Your task to perform on an android device: toggle notification dots Image 0: 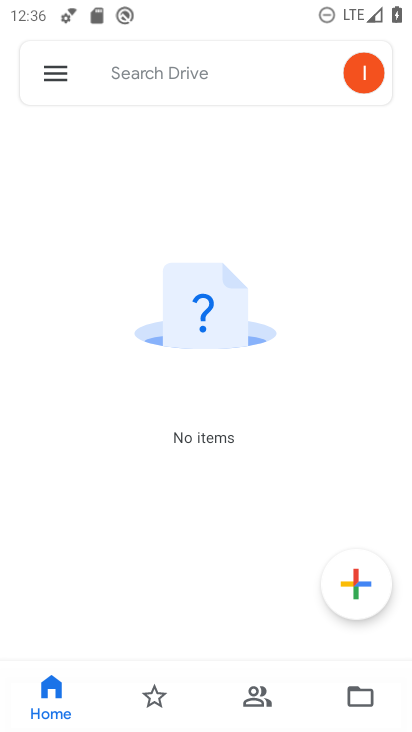
Step 0: press home button
Your task to perform on an android device: toggle notification dots Image 1: 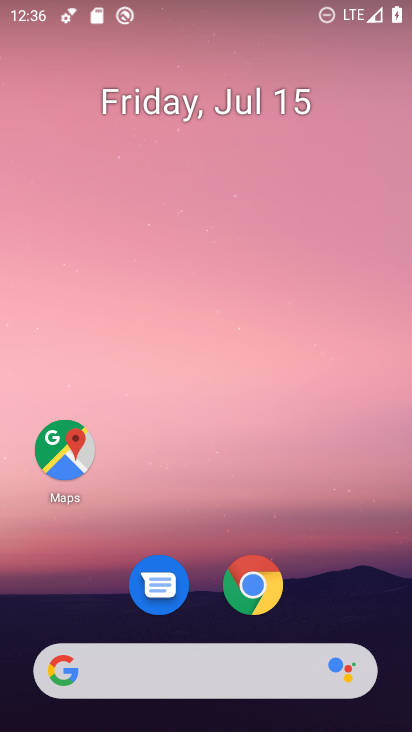
Step 1: drag from (178, 473) to (237, 5)
Your task to perform on an android device: toggle notification dots Image 2: 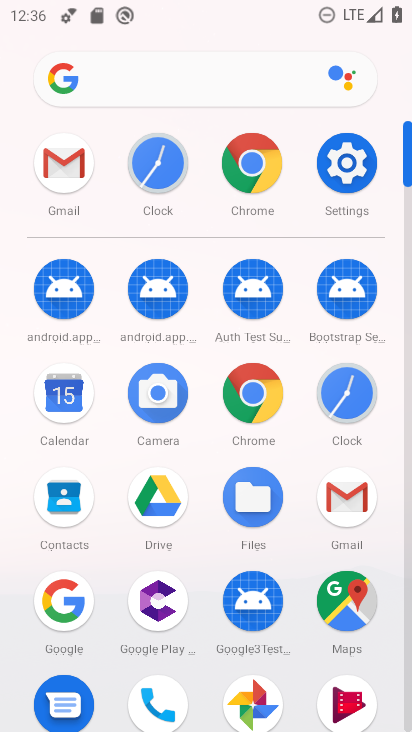
Step 2: click (342, 166)
Your task to perform on an android device: toggle notification dots Image 3: 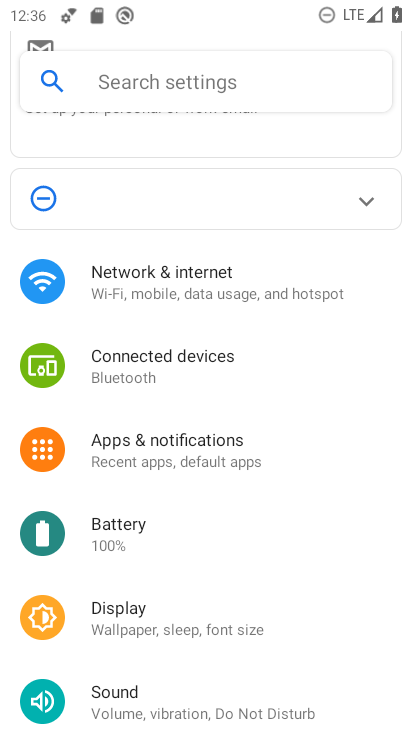
Step 3: click (230, 467)
Your task to perform on an android device: toggle notification dots Image 4: 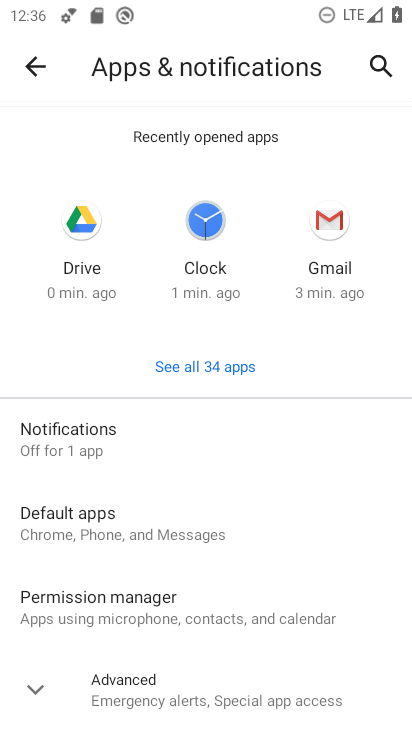
Step 4: drag from (219, 521) to (253, 171)
Your task to perform on an android device: toggle notification dots Image 5: 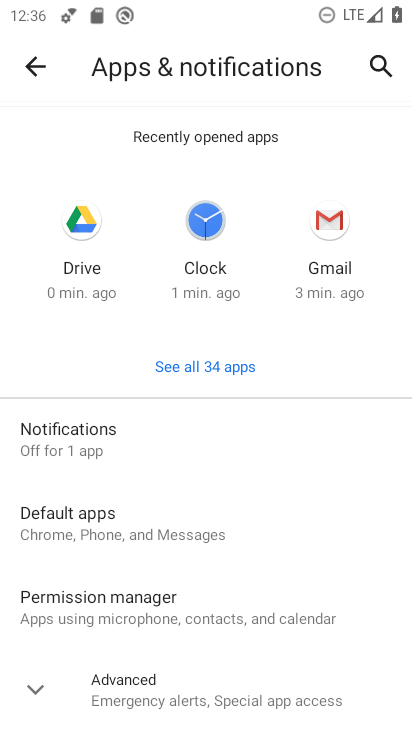
Step 5: click (38, 679)
Your task to perform on an android device: toggle notification dots Image 6: 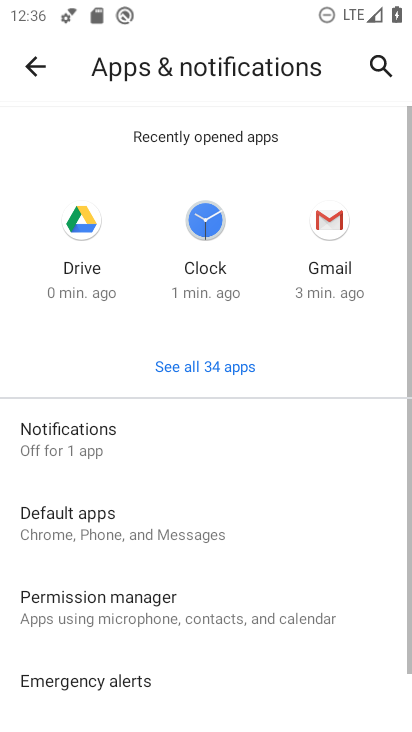
Step 6: drag from (283, 575) to (295, 328)
Your task to perform on an android device: toggle notification dots Image 7: 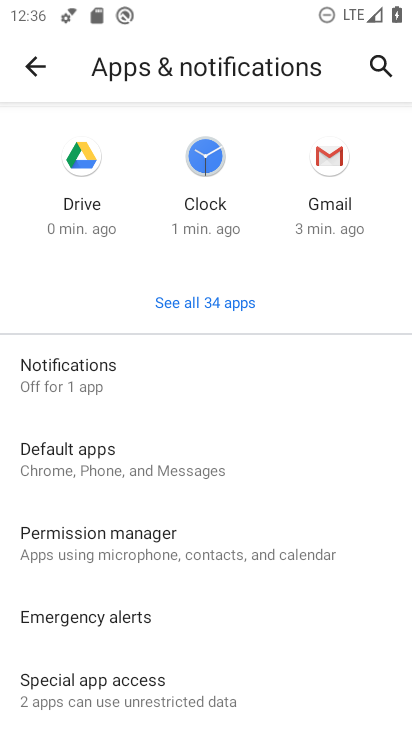
Step 7: drag from (249, 614) to (273, 419)
Your task to perform on an android device: toggle notification dots Image 8: 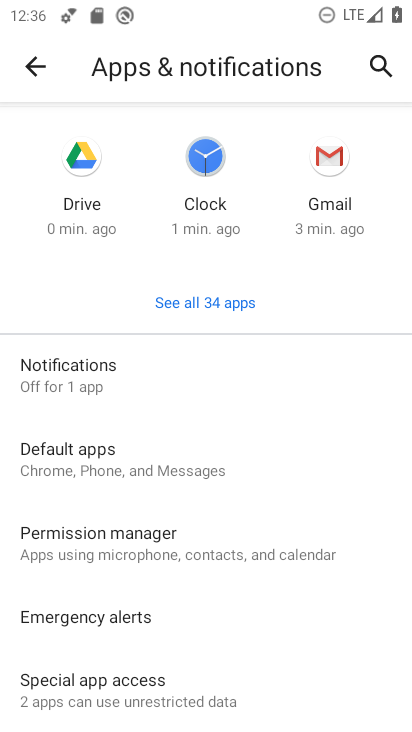
Step 8: drag from (204, 374) to (209, 550)
Your task to perform on an android device: toggle notification dots Image 9: 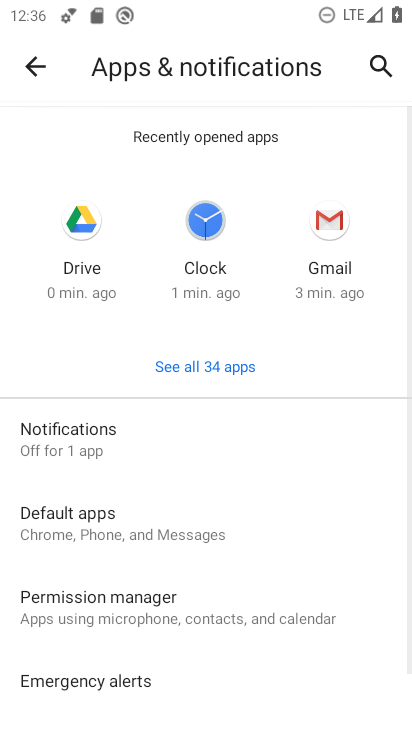
Step 9: click (85, 449)
Your task to perform on an android device: toggle notification dots Image 10: 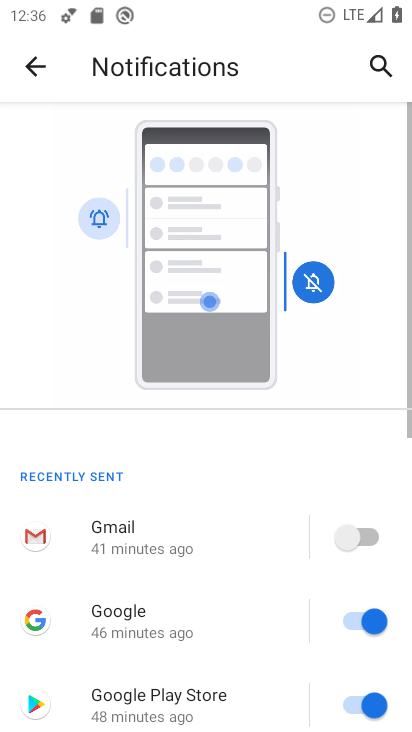
Step 10: drag from (238, 542) to (256, 215)
Your task to perform on an android device: toggle notification dots Image 11: 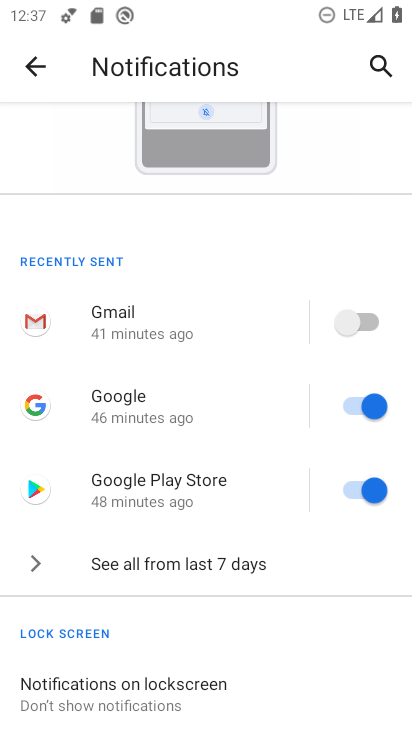
Step 11: drag from (181, 626) to (197, 350)
Your task to perform on an android device: toggle notification dots Image 12: 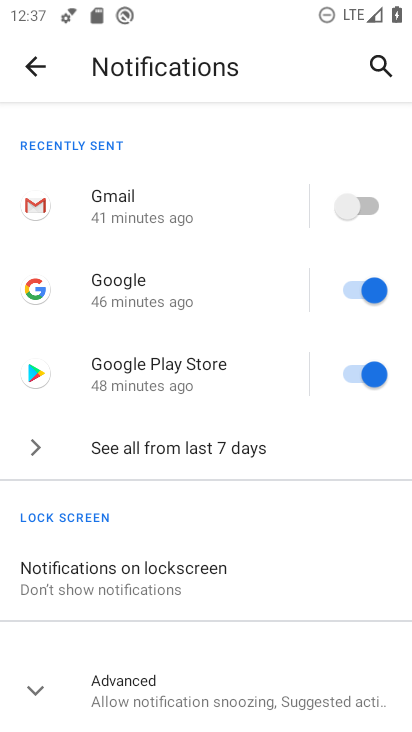
Step 12: click (36, 681)
Your task to perform on an android device: toggle notification dots Image 13: 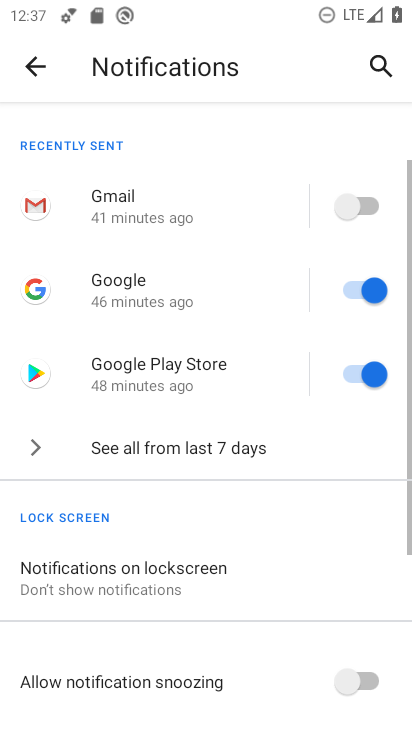
Step 13: drag from (219, 638) to (275, 253)
Your task to perform on an android device: toggle notification dots Image 14: 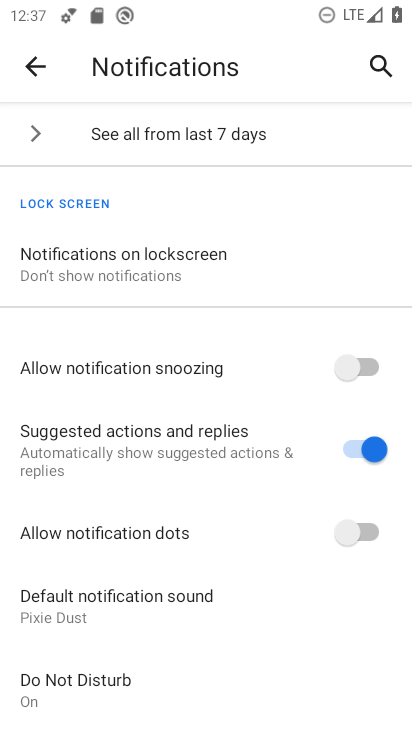
Step 14: click (360, 518)
Your task to perform on an android device: toggle notification dots Image 15: 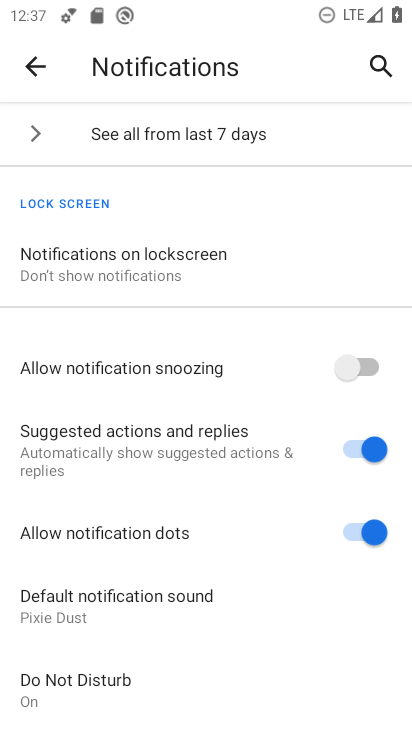
Step 15: task complete